Your task to perform on an android device: toggle javascript in the chrome app Image 0: 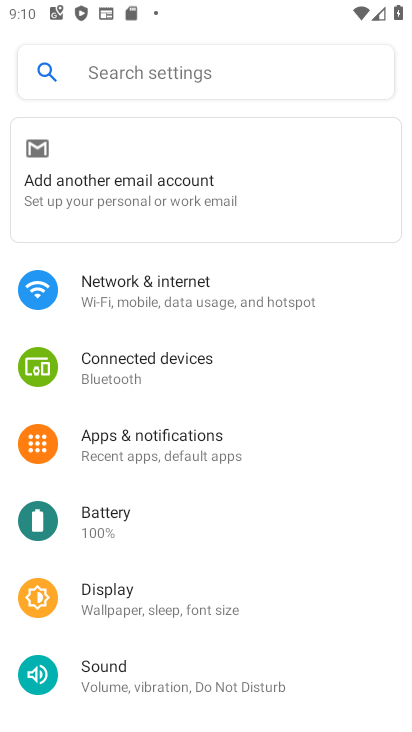
Step 0: press home button
Your task to perform on an android device: toggle javascript in the chrome app Image 1: 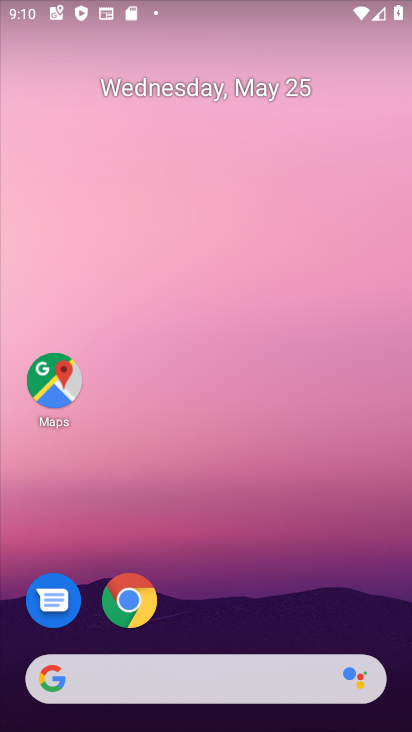
Step 1: drag from (274, 590) to (179, 5)
Your task to perform on an android device: toggle javascript in the chrome app Image 2: 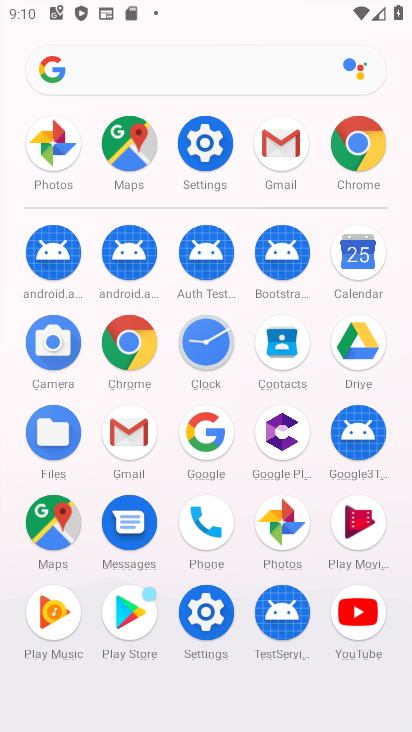
Step 2: click (126, 336)
Your task to perform on an android device: toggle javascript in the chrome app Image 3: 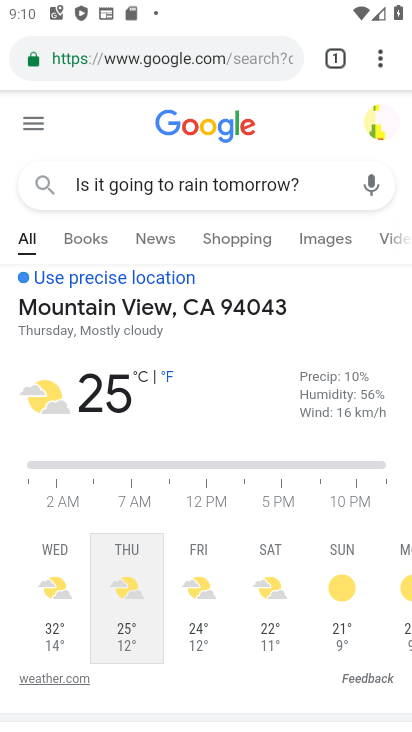
Step 3: drag from (382, 68) to (194, 613)
Your task to perform on an android device: toggle javascript in the chrome app Image 4: 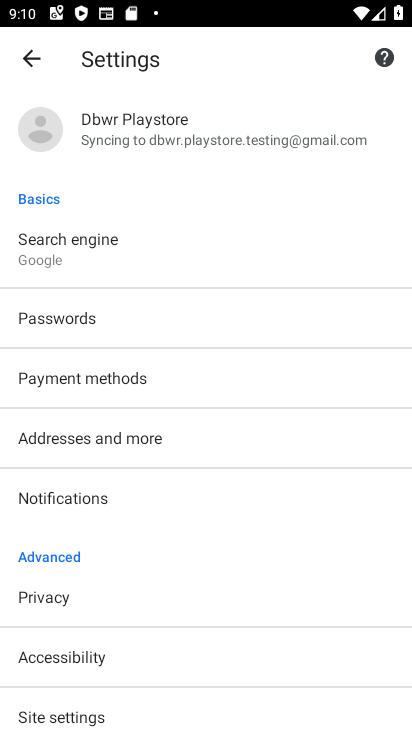
Step 4: drag from (224, 623) to (227, 197)
Your task to perform on an android device: toggle javascript in the chrome app Image 5: 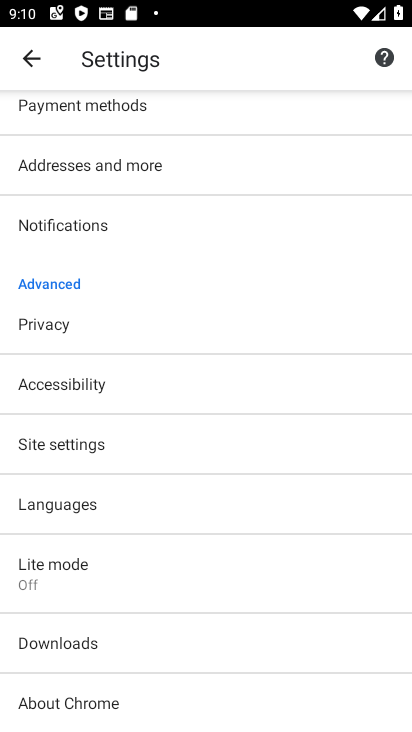
Step 5: click (121, 427)
Your task to perform on an android device: toggle javascript in the chrome app Image 6: 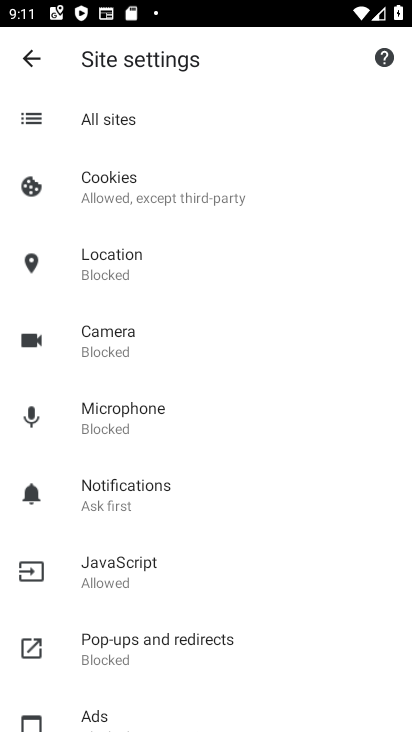
Step 6: click (162, 567)
Your task to perform on an android device: toggle javascript in the chrome app Image 7: 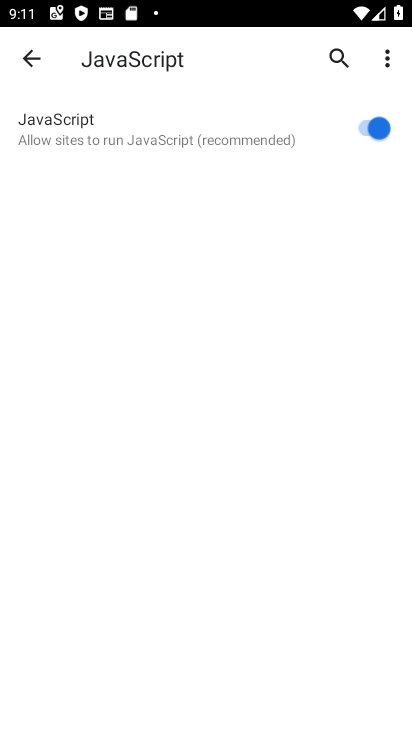
Step 7: click (357, 123)
Your task to perform on an android device: toggle javascript in the chrome app Image 8: 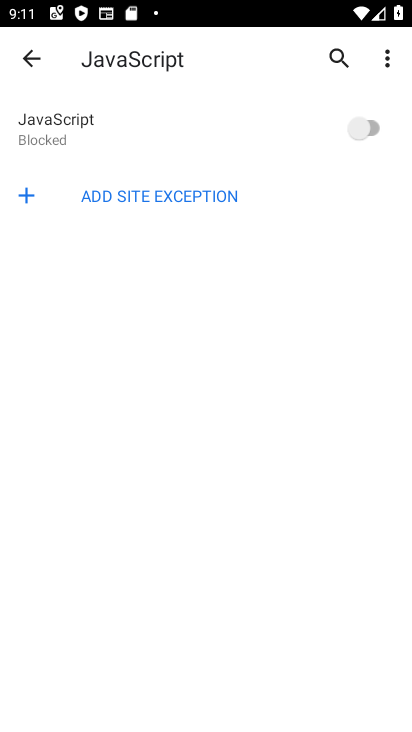
Step 8: task complete